Your task to perform on an android device: see tabs open on other devices in the chrome app Image 0: 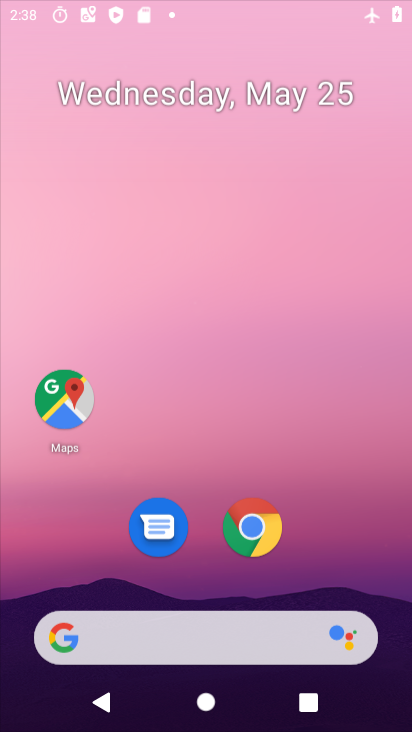
Step 0: click (264, 217)
Your task to perform on an android device: see tabs open on other devices in the chrome app Image 1: 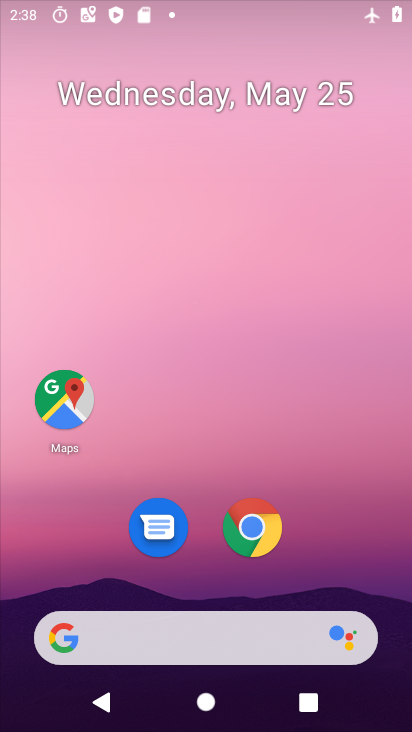
Step 1: drag from (196, 592) to (279, 164)
Your task to perform on an android device: see tabs open on other devices in the chrome app Image 2: 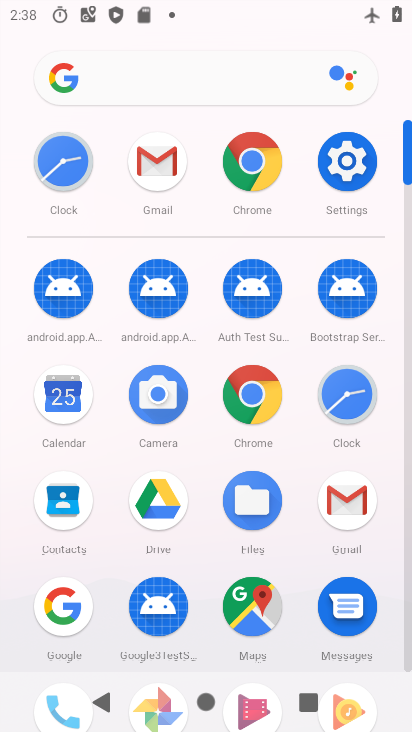
Step 2: click (246, 399)
Your task to perform on an android device: see tabs open on other devices in the chrome app Image 3: 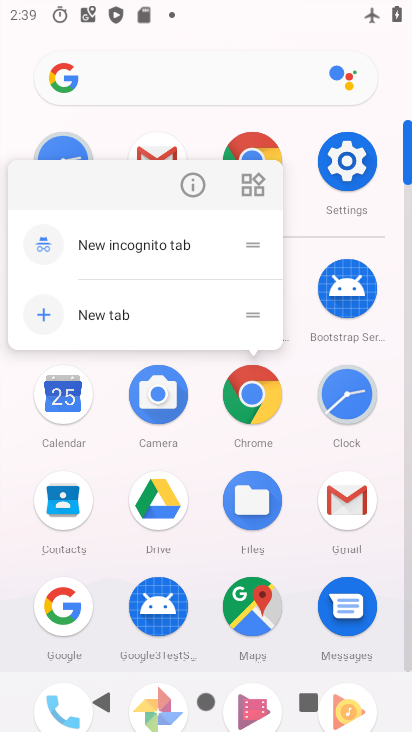
Step 3: click (201, 177)
Your task to perform on an android device: see tabs open on other devices in the chrome app Image 4: 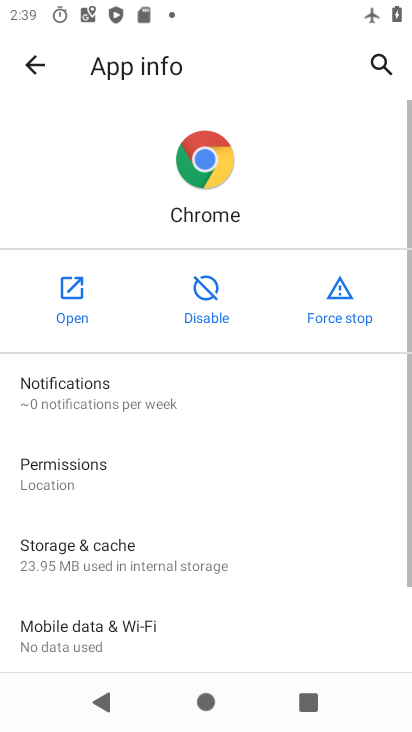
Step 4: click (89, 281)
Your task to perform on an android device: see tabs open on other devices in the chrome app Image 5: 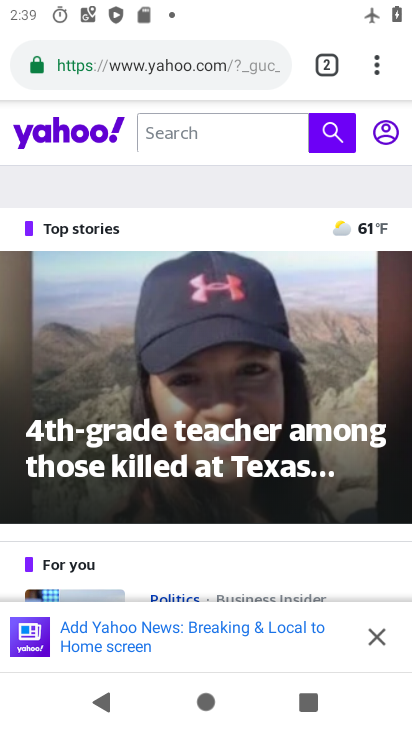
Step 5: drag from (262, 560) to (317, 235)
Your task to perform on an android device: see tabs open on other devices in the chrome app Image 6: 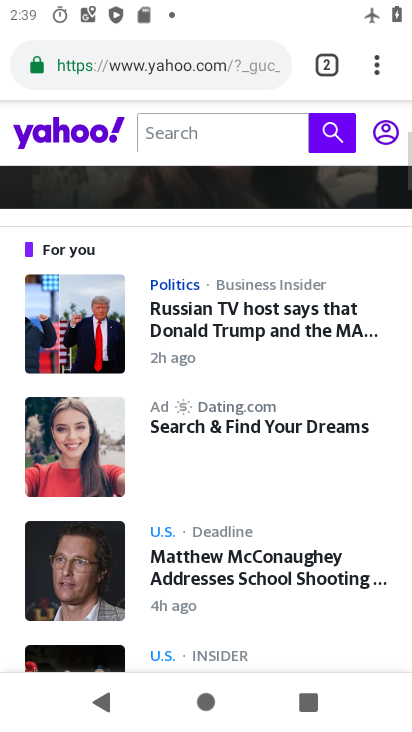
Step 6: drag from (292, 220) to (294, 721)
Your task to perform on an android device: see tabs open on other devices in the chrome app Image 7: 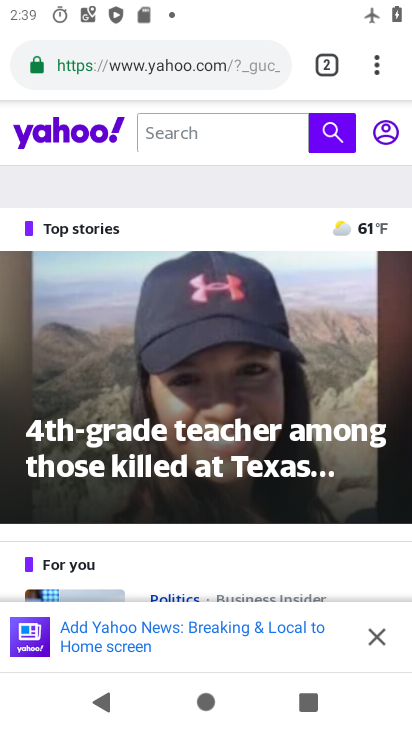
Step 7: click (382, 73)
Your task to perform on an android device: see tabs open on other devices in the chrome app Image 8: 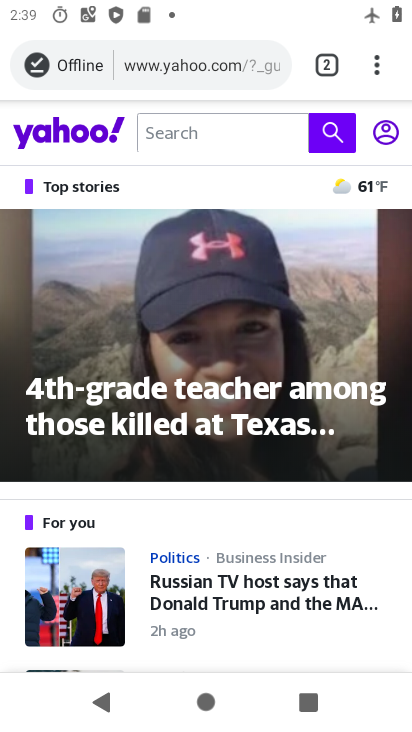
Step 8: click (375, 72)
Your task to perform on an android device: see tabs open on other devices in the chrome app Image 9: 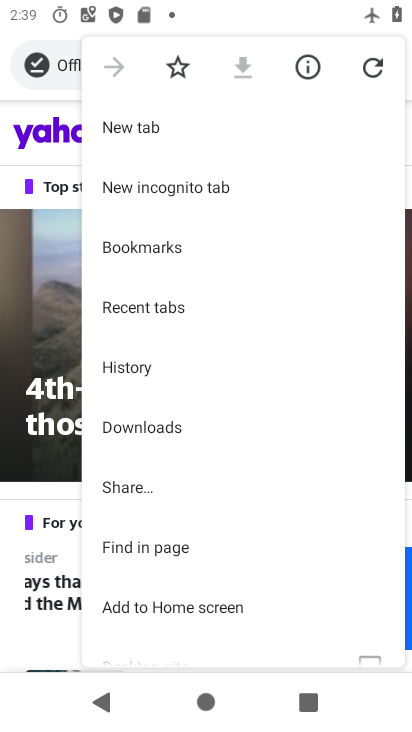
Step 9: click (155, 306)
Your task to perform on an android device: see tabs open on other devices in the chrome app Image 10: 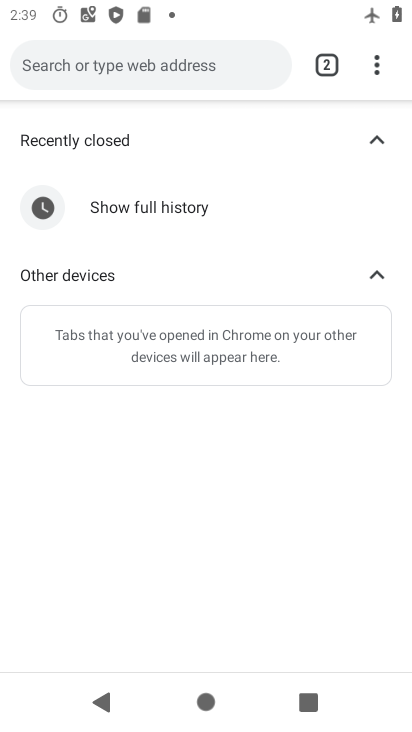
Step 10: task complete